Your task to perform on an android device: Open location settings Image 0: 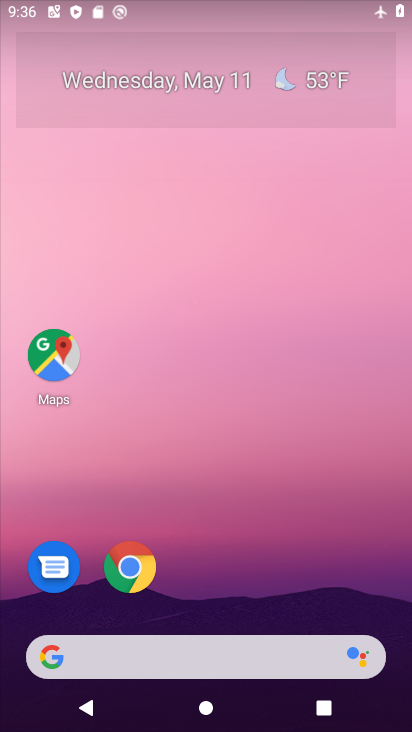
Step 0: drag from (276, 633) to (268, 0)
Your task to perform on an android device: Open location settings Image 1: 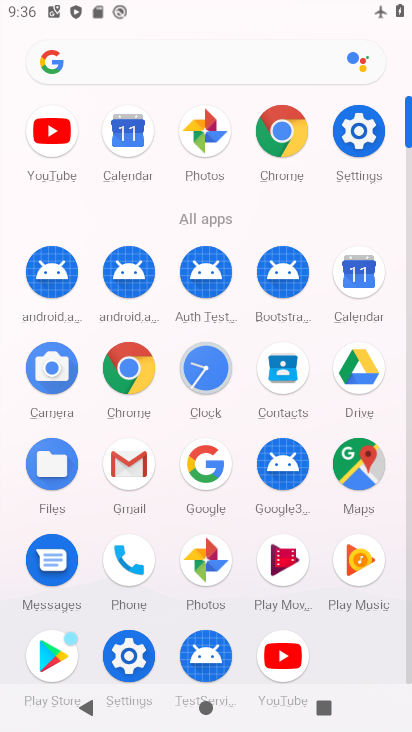
Step 1: click (366, 145)
Your task to perform on an android device: Open location settings Image 2: 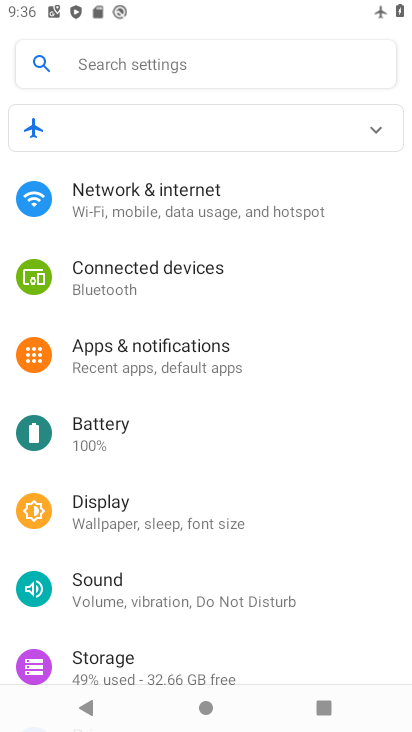
Step 2: drag from (200, 603) to (252, 106)
Your task to perform on an android device: Open location settings Image 3: 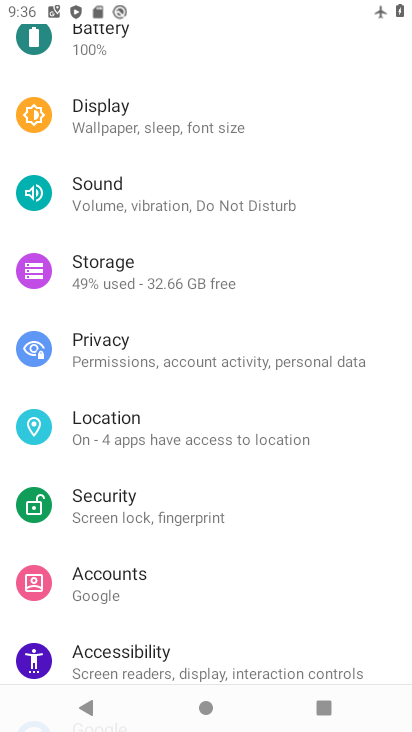
Step 3: click (149, 440)
Your task to perform on an android device: Open location settings Image 4: 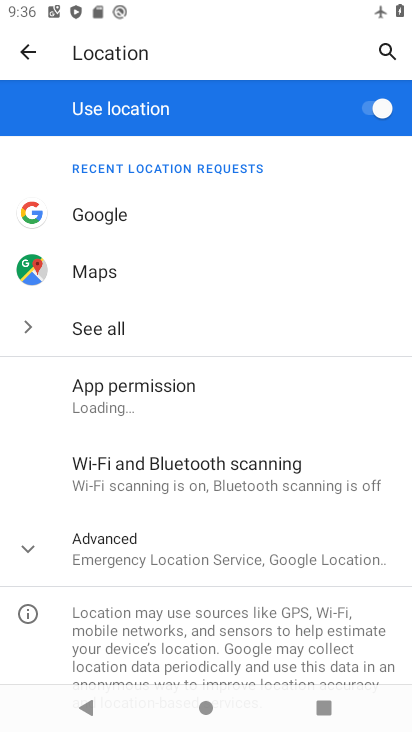
Step 4: task complete